Your task to perform on an android device: View the shopping cart on costco. Add dell xps to the cart on costco, then select checkout. Image 0: 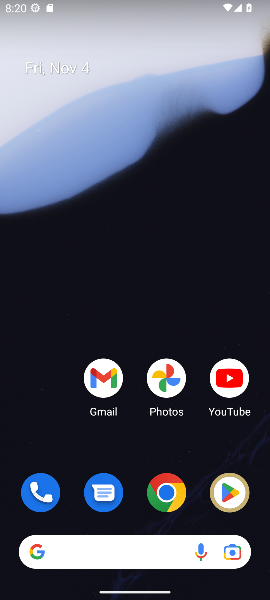
Step 0: drag from (140, 450) to (202, 57)
Your task to perform on an android device: View the shopping cart on costco. Add dell xps to the cart on costco, then select checkout. Image 1: 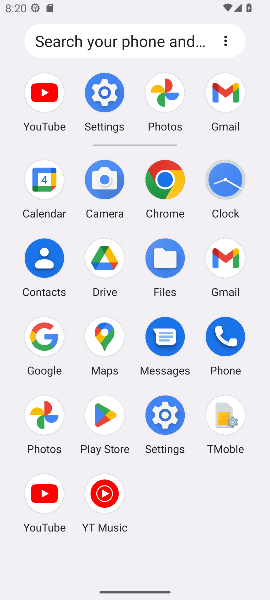
Step 1: click (164, 178)
Your task to perform on an android device: View the shopping cart on costco. Add dell xps to the cart on costco, then select checkout. Image 2: 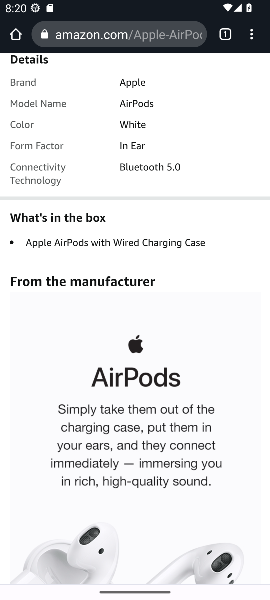
Step 2: click (130, 35)
Your task to perform on an android device: View the shopping cart on costco. Add dell xps to the cart on costco, then select checkout. Image 3: 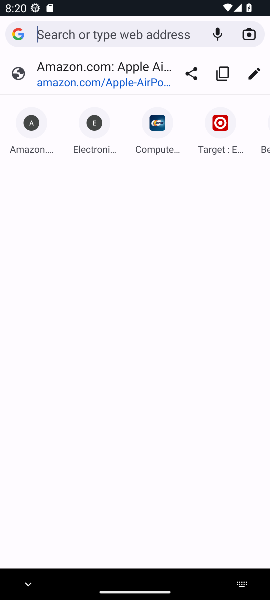
Step 3: type "costco.com"
Your task to perform on an android device: View the shopping cart on costco. Add dell xps to the cart on costco, then select checkout. Image 4: 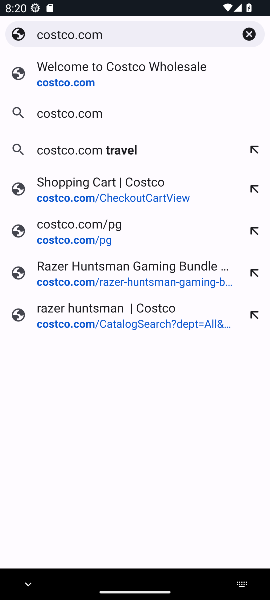
Step 4: press enter
Your task to perform on an android device: View the shopping cart on costco. Add dell xps to the cart on costco, then select checkout. Image 5: 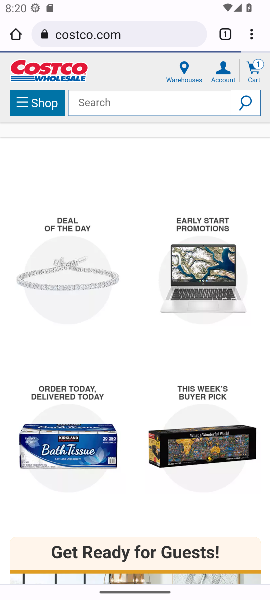
Step 5: click (249, 65)
Your task to perform on an android device: View the shopping cart on costco. Add dell xps to the cart on costco, then select checkout. Image 6: 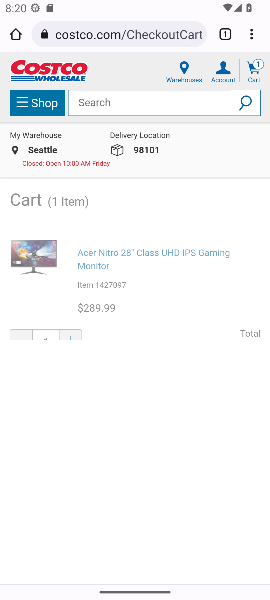
Step 6: click (160, 105)
Your task to perform on an android device: View the shopping cart on costco. Add dell xps to the cart on costco, then select checkout. Image 7: 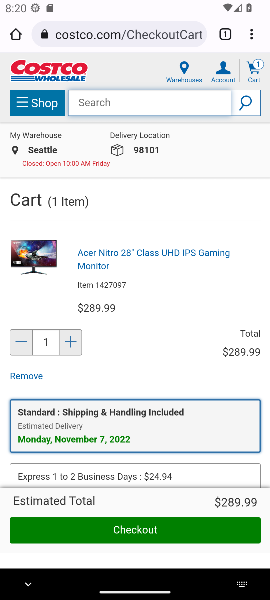
Step 7: type "dell xps"
Your task to perform on an android device: View the shopping cart on costco. Add dell xps to the cart on costco, then select checkout. Image 8: 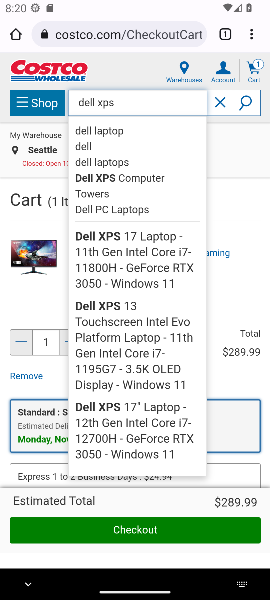
Step 8: press enter
Your task to perform on an android device: View the shopping cart on costco. Add dell xps to the cart on costco, then select checkout. Image 9: 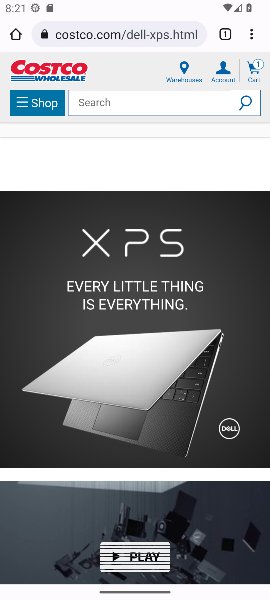
Step 9: click (193, 318)
Your task to perform on an android device: View the shopping cart on costco. Add dell xps to the cart on costco, then select checkout. Image 10: 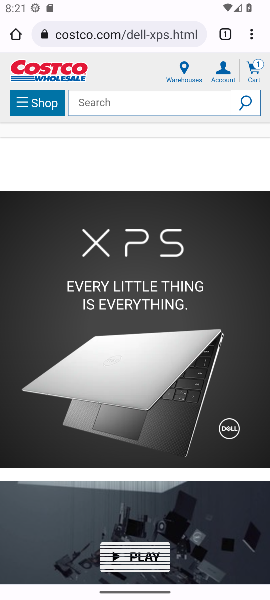
Step 10: click (197, 309)
Your task to perform on an android device: View the shopping cart on costco. Add dell xps to the cart on costco, then select checkout. Image 11: 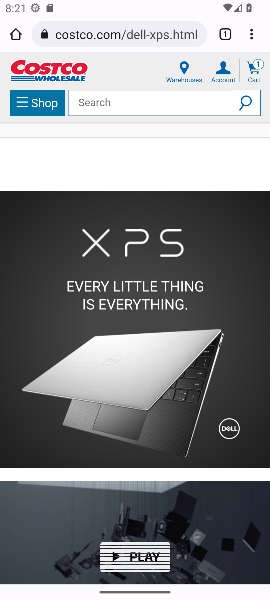
Step 11: drag from (178, 366) to (159, 124)
Your task to perform on an android device: View the shopping cart on costco. Add dell xps to the cart on costco, then select checkout. Image 12: 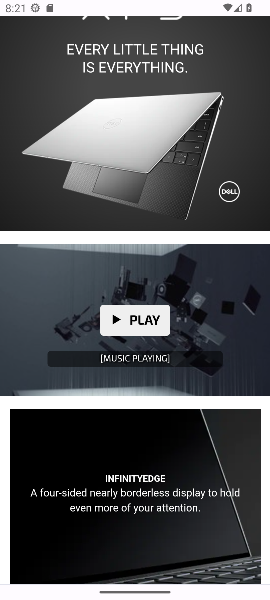
Step 12: click (164, 153)
Your task to perform on an android device: View the shopping cart on costco. Add dell xps to the cart on costco, then select checkout. Image 13: 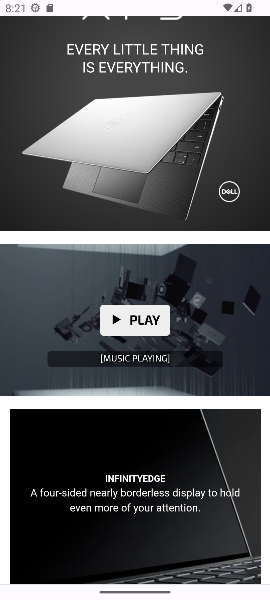
Step 13: click (160, 151)
Your task to perform on an android device: View the shopping cart on costco. Add dell xps to the cart on costco, then select checkout. Image 14: 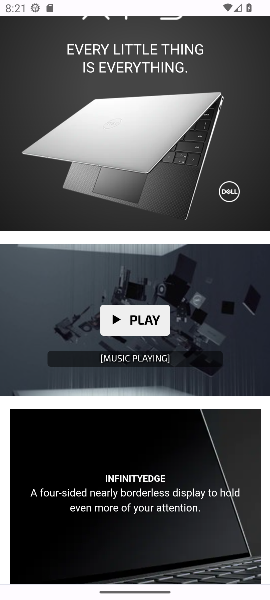
Step 14: drag from (200, 338) to (219, 7)
Your task to perform on an android device: View the shopping cart on costco. Add dell xps to the cart on costco, then select checkout. Image 15: 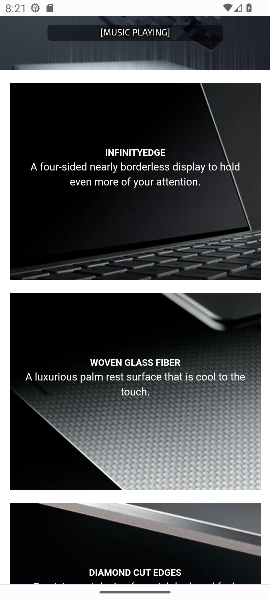
Step 15: drag from (176, 318) to (181, 66)
Your task to perform on an android device: View the shopping cart on costco. Add dell xps to the cart on costco, then select checkout. Image 16: 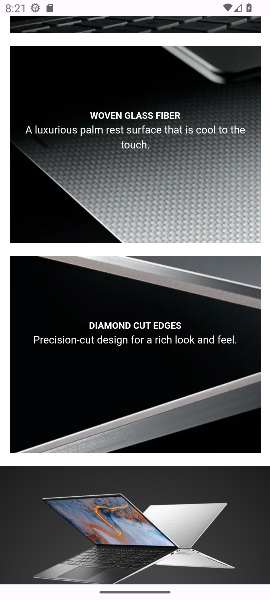
Step 16: drag from (163, 346) to (193, 67)
Your task to perform on an android device: View the shopping cart on costco. Add dell xps to the cart on costco, then select checkout. Image 17: 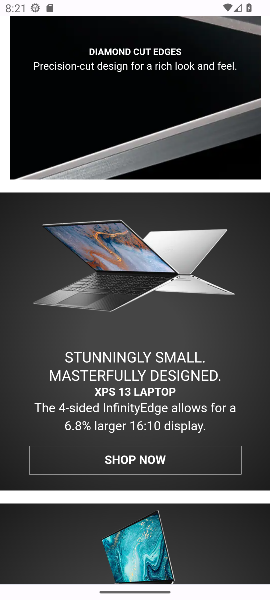
Step 17: drag from (178, 131) to (210, 463)
Your task to perform on an android device: View the shopping cart on costco. Add dell xps to the cart on costco, then select checkout. Image 18: 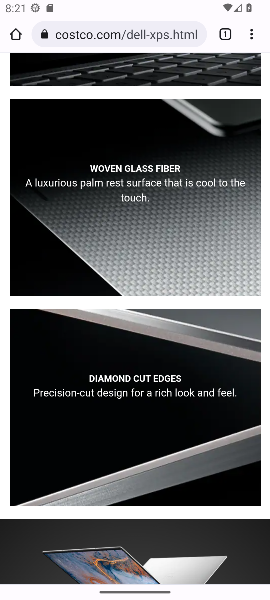
Step 18: drag from (233, 174) to (218, 404)
Your task to perform on an android device: View the shopping cart on costco. Add dell xps to the cart on costco, then select checkout. Image 19: 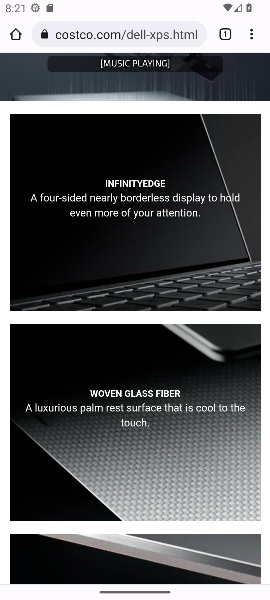
Step 19: drag from (207, 189) to (195, 441)
Your task to perform on an android device: View the shopping cart on costco. Add dell xps to the cart on costco, then select checkout. Image 20: 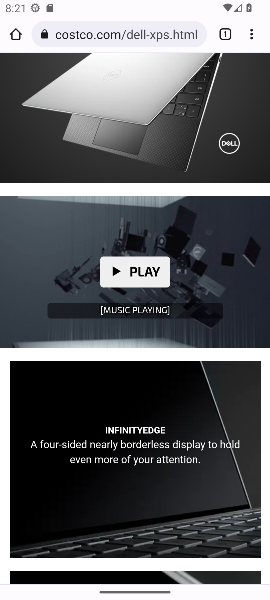
Step 20: drag from (214, 178) to (178, 453)
Your task to perform on an android device: View the shopping cart on costco. Add dell xps to the cart on costco, then select checkout. Image 21: 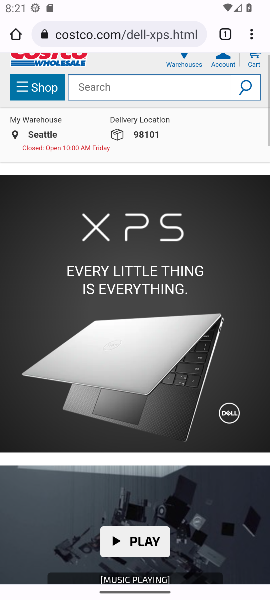
Step 21: click (175, 301)
Your task to perform on an android device: View the shopping cart on costco. Add dell xps to the cart on costco, then select checkout. Image 22: 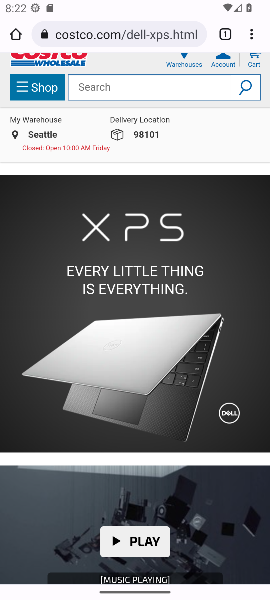
Step 22: click (163, 321)
Your task to perform on an android device: View the shopping cart on costco. Add dell xps to the cart on costco, then select checkout. Image 23: 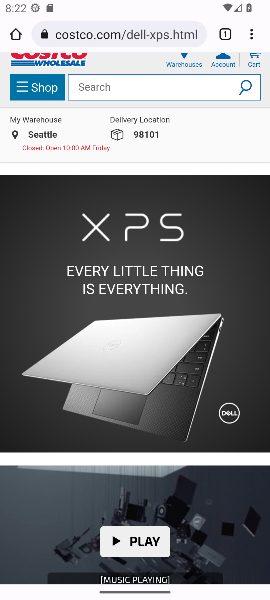
Step 23: click (163, 321)
Your task to perform on an android device: View the shopping cart on costco. Add dell xps to the cart on costco, then select checkout. Image 24: 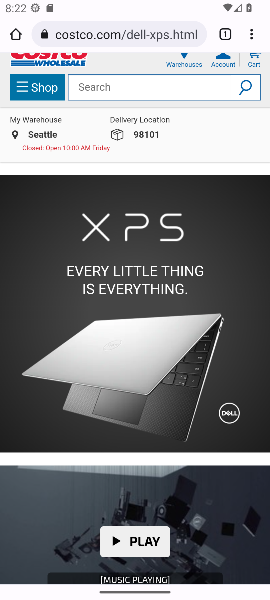
Step 24: drag from (141, 186) to (149, 509)
Your task to perform on an android device: View the shopping cart on costco. Add dell xps to the cart on costco, then select checkout. Image 25: 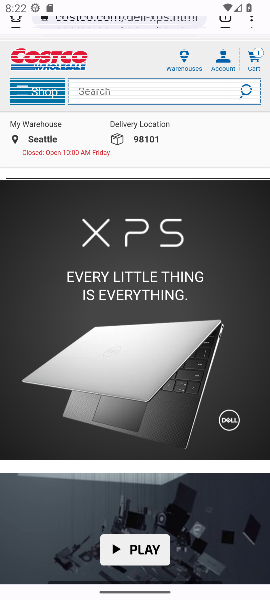
Step 25: drag from (160, 353) to (169, 487)
Your task to perform on an android device: View the shopping cart on costco. Add dell xps to the cart on costco, then select checkout. Image 26: 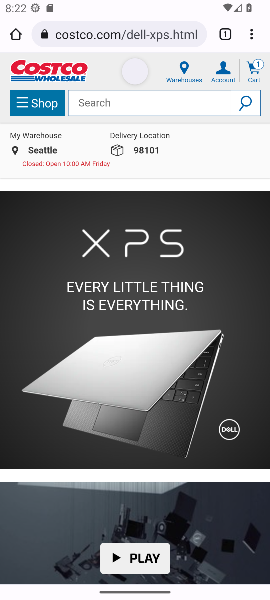
Step 26: click (148, 389)
Your task to perform on an android device: View the shopping cart on costco. Add dell xps to the cart on costco, then select checkout. Image 27: 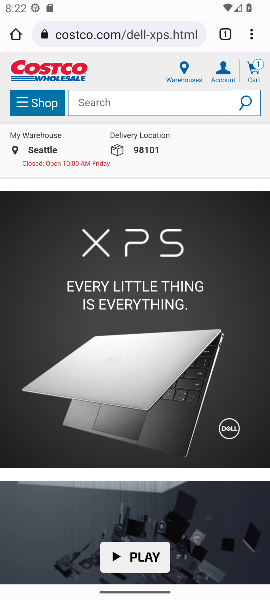
Step 27: drag from (157, 496) to (188, 61)
Your task to perform on an android device: View the shopping cart on costco. Add dell xps to the cart on costco, then select checkout. Image 28: 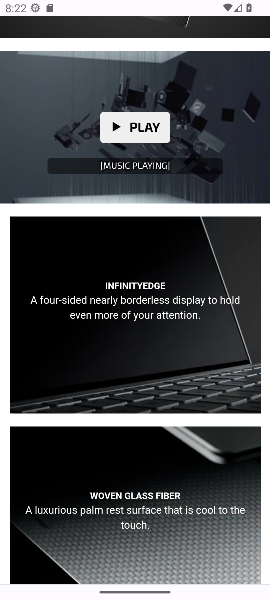
Step 28: drag from (140, 413) to (191, 77)
Your task to perform on an android device: View the shopping cart on costco. Add dell xps to the cart on costco, then select checkout. Image 29: 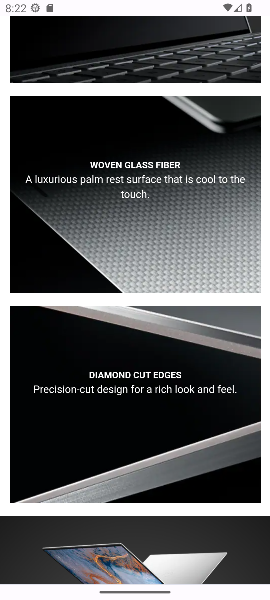
Step 29: drag from (157, 472) to (191, 132)
Your task to perform on an android device: View the shopping cart on costco. Add dell xps to the cart on costco, then select checkout. Image 30: 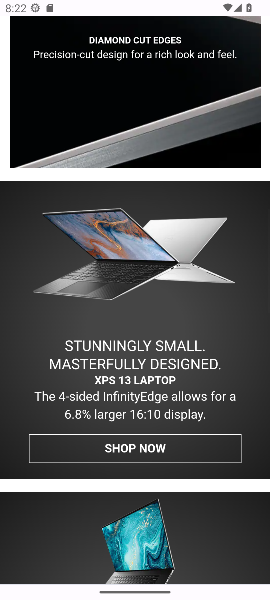
Step 30: drag from (145, 474) to (141, 538)
Your task to perform on an android device: View the shopping cart on costco. Add dell xps to the cart on costco, then select checkout. Image 31: 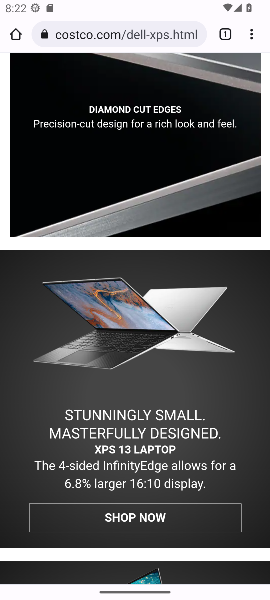
Step 31: drag from (165, 318) to (163, 554)
Your task to perform on an android device: View the shopping cart on costco. Add dell xps to the cart on costco, then select checkout. Image 32: 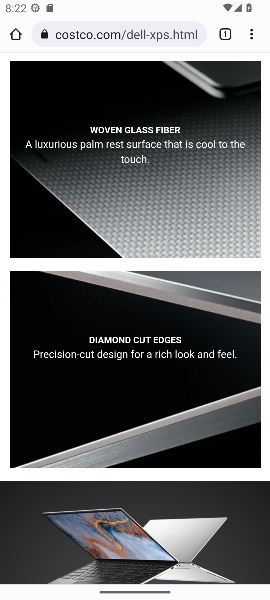
Step 32: drag from (190, 214) to (178, 423)
Your task to perform on an android device: View the shopping cart on costco. Add dell xps to the cart on costco, then select checkout. Image 33: 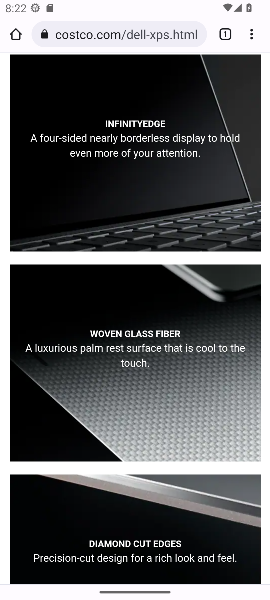
Step 33: drag from (172, 212) to (161, 419)
Your task to perform on an android device: View the shopping cart on costco. Add dell xps to the cart on costco, then select checkout. Image 34: 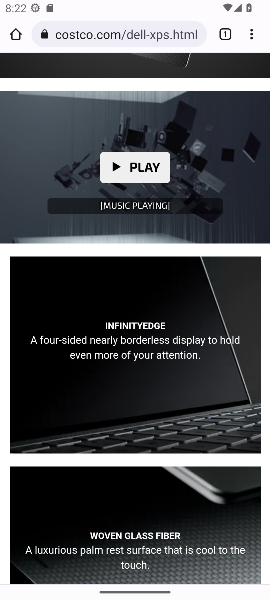
Step 34: drag from (180, 229) to (194, 81)
Your task to perform on an android device: View the shopping cart on costco. Add dell xps to the cart on costco, then select checkout. Image 35: 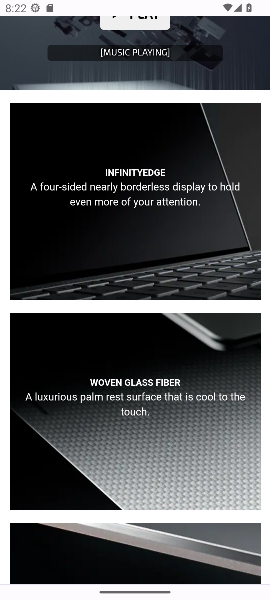
Step 35: drag from (147, 444) to (190, 147)
Your task to perform on an android device: View the shopping cart on costco. Add dell xps to the cart on costco, then select checkout. Image 36: 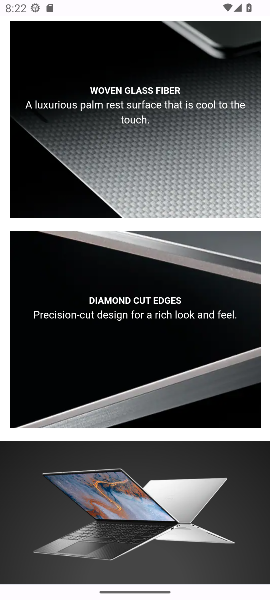
Step 36: drag from (131, 435) to (206, 146)
Your task to perform on an android device: View the shopping cart on costco. Add dell xps to the cart on costco, then select checkout. Image 37: 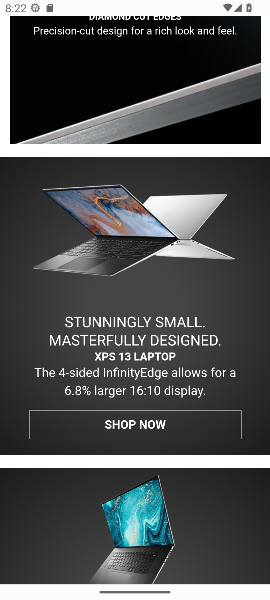
Step 37: drag from (156, 398) to (191, 293)
Your task to perform on an android device: View the shopping cart on costco. Add dell xps to the cart on costco, then select checkout. Image 38: 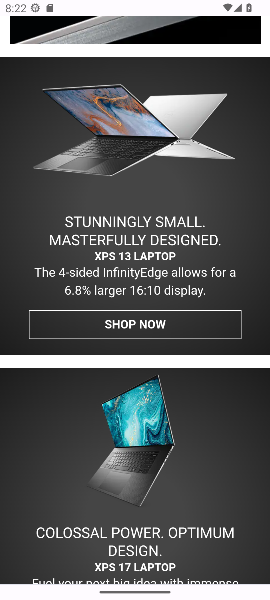
Step 38: click (167, 323)
Your task to perform on an android device: View the shopping cart on costco. Add dell xps to the cart on costco, then select checkout. Image 39: 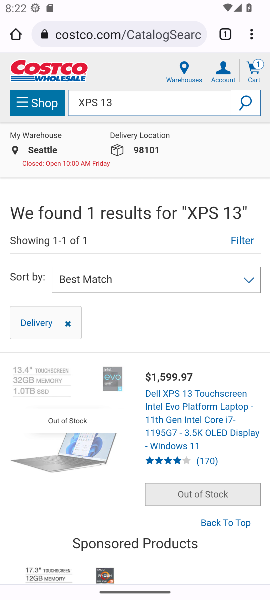
Step 39: click (200, 469)
Your task to perform on an android device: View the shopping cart on costco. Add dell xps to the cart on costco, then select checkout. Image 40: 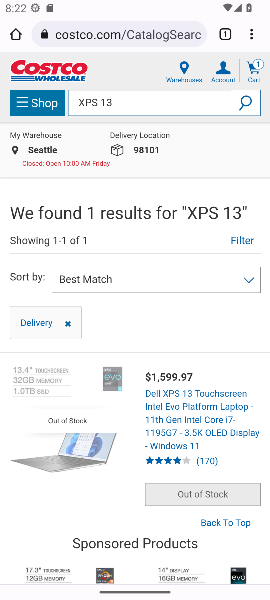
Step 40: click (196, 406)
Your task to perform on an android device: View the shopping cart on costco. Add dell xps to the cart on costco, then select checkout. Image 41: 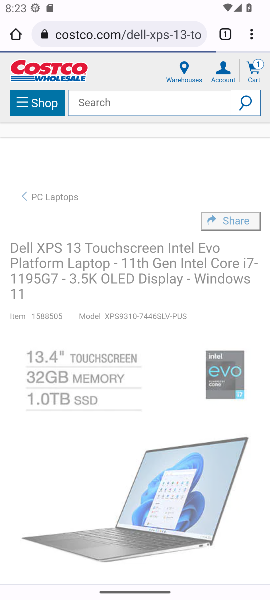
Step 41: task complete